Your task to perform on an android device: allow cookies in the chrome app Image 0: 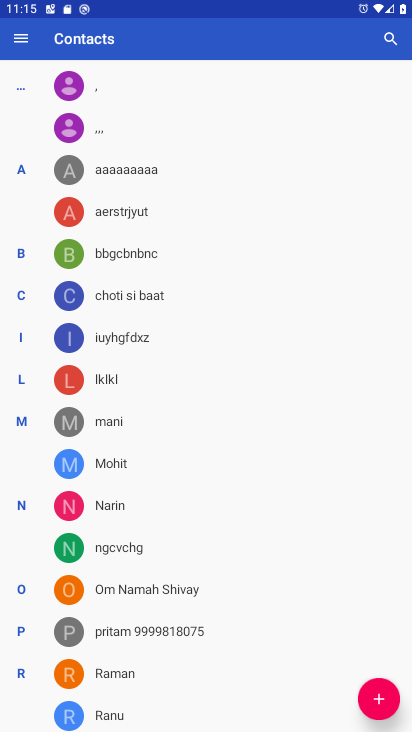
Step 0: press home button
Your task to perform on an android device: allow cookies in the chrome app Image 1: 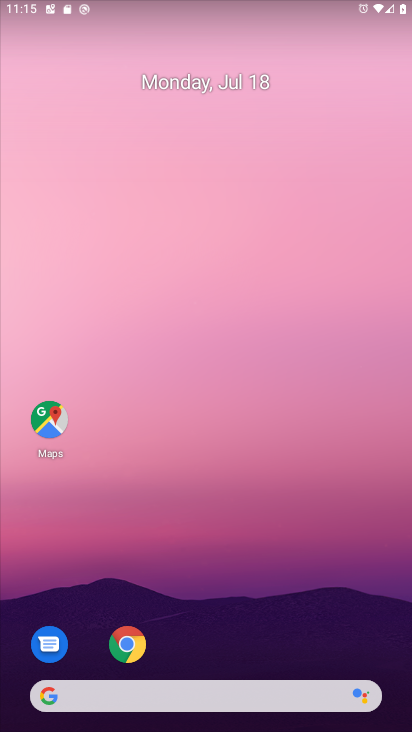
Step 1: drag from (257, 678) to (280, 165)
Your task to perform on an android device: allow cookies in the chrome app Image 2: 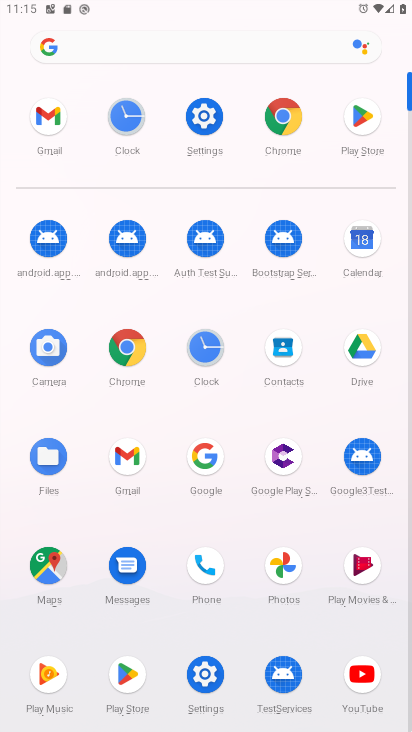
Step 2: click (286, 123)
Your task to perform on an android device: allow cookies in the chrome app Image 3: 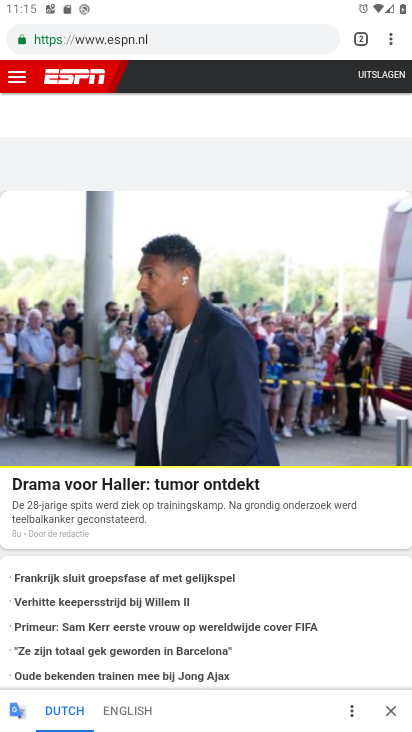
Step 3: click (391, 37)
Your task to perform on an android device: allow cookies in the chrome app Image 4: 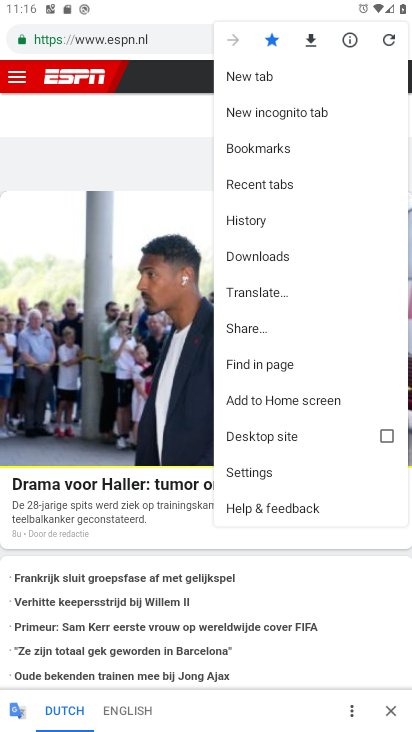
Step 4: click (265, 471)
Your task to perform on an android device: allow cookies in the chrome app Image 5: 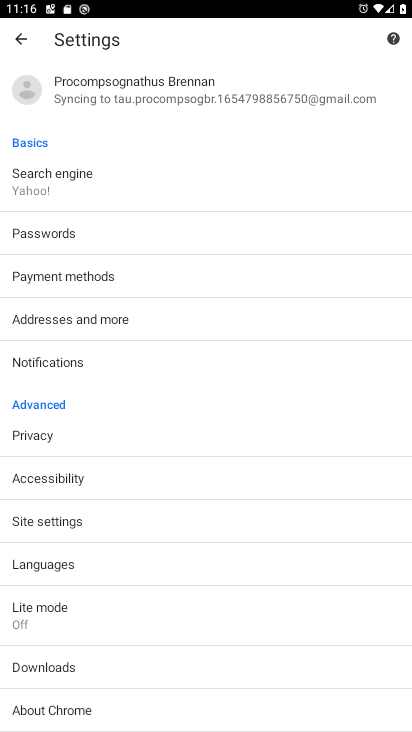
Step 5: task complete